Your task to perform on an android device: toggle notifications settings in the gmail app Image 0: 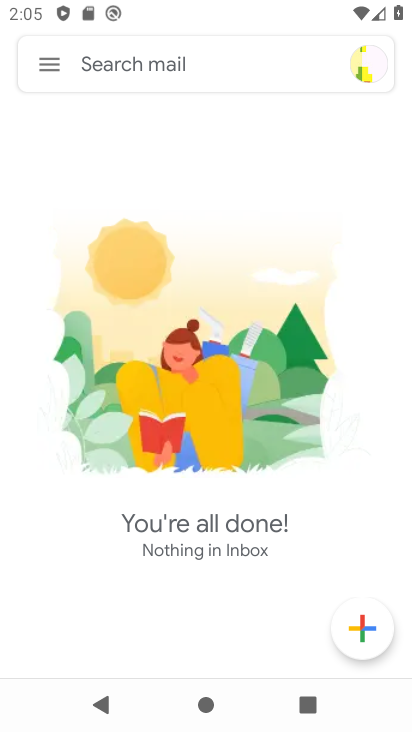
Step 0: press home button
Your task to perform on an android device: toggle notifications settings in the gmail app Image 1: 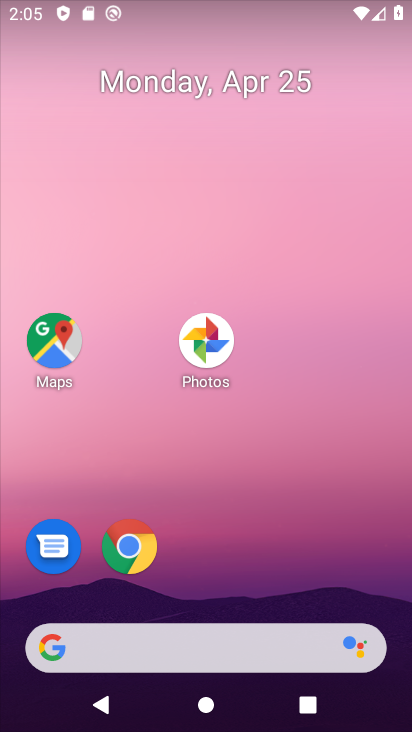
Step 1: drag from (307, 546) to (279, 373)
Your task to perform on an android device: toggle notifications settings in the gmail app Image 2: 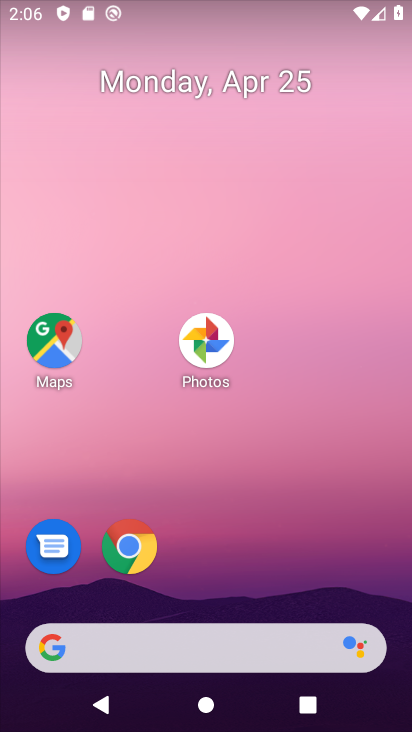
Step 2: drag from (283, 583) to (278, 251)
Your task to perform on an android device: toggle notifications settings in the gmail app Image 3: 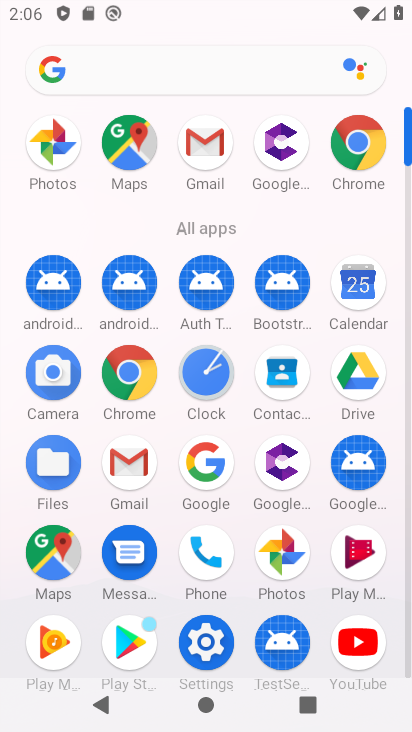
Step 3: click (204, 140)
Your task to perform on an android device: toggle notifications settings in the gmail app Image 4: 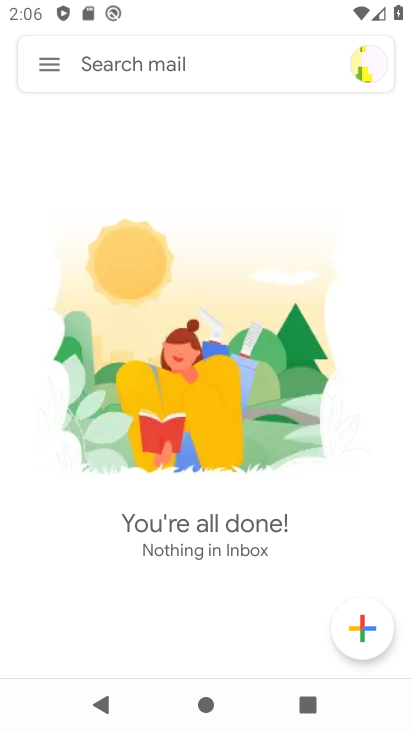
Step 4: click (40, 61)
Your task to perform on an android device: toggle notifications settings in the gmail app Image 5: 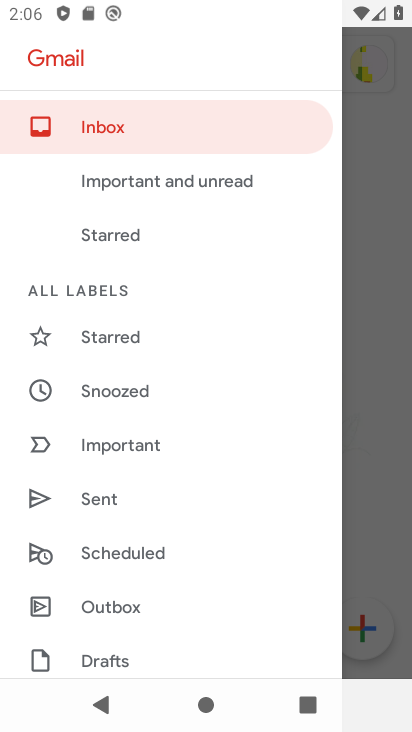
Step 5: drag from (165, 590) to (162, 235)
Your task to perform on an android device: toggle notifications settings in the gmail app Image 6: 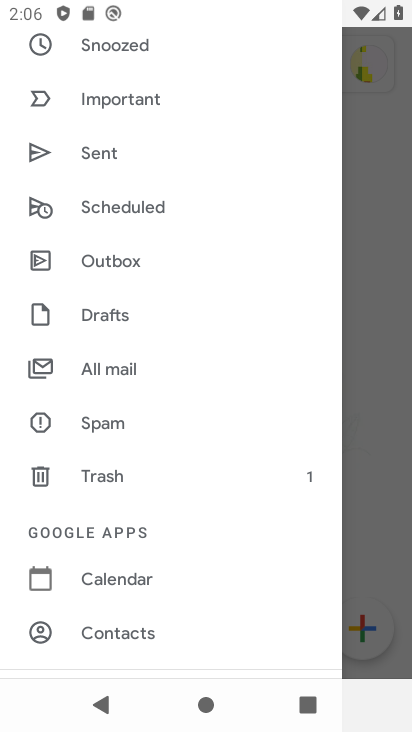
Step 6: drag from (176, 575) to (210, 230)
Your task to perform on an android device: toggle notifications settings in the gmail app Image 7: 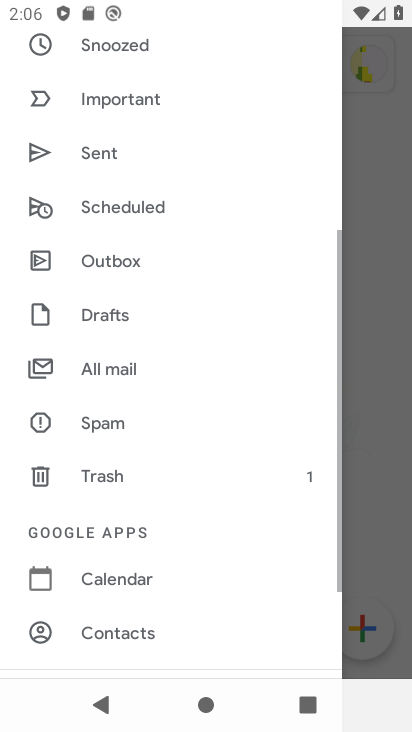
Step 7: drag from (213, 602) to (231, 215)
Your task to perform on an android device: toggle notifications settings in the gmail app Image 8: 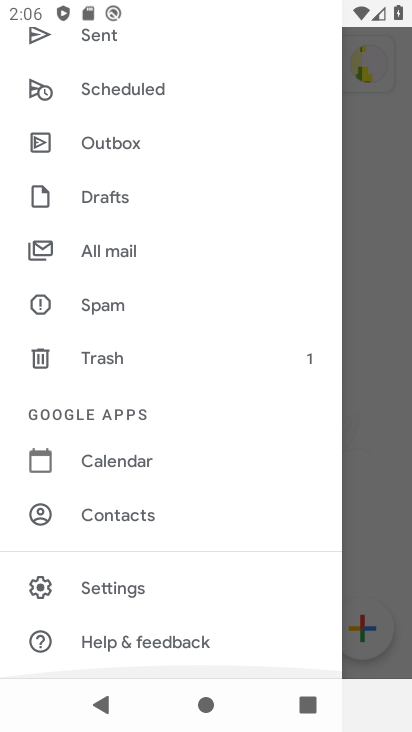
Step 8: click (151, 593)
Your task to perform on an android device: toggle notifications settings in the gmail app Image 9: 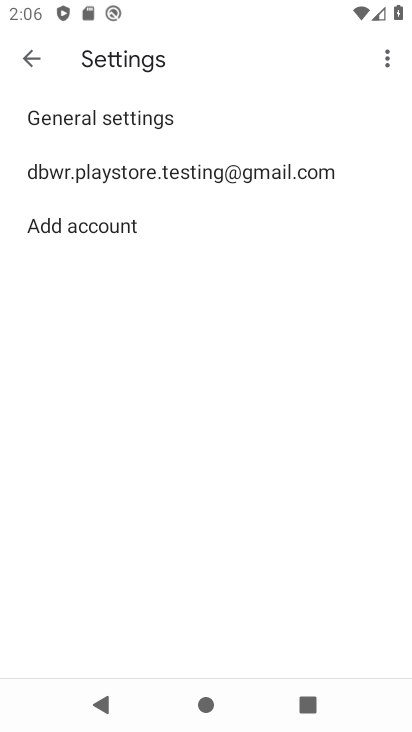
Step 9: click (206, 148)
Your task to perform on an android device: toggle notifications settings in the gmail app Image 10: 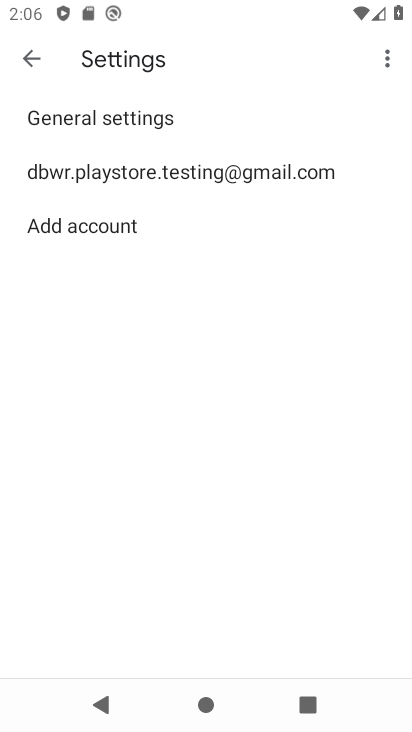
Step 10: click (211, 174)
Your task to perform on an android device: toggle notifications settings in the gmail app Image 11: 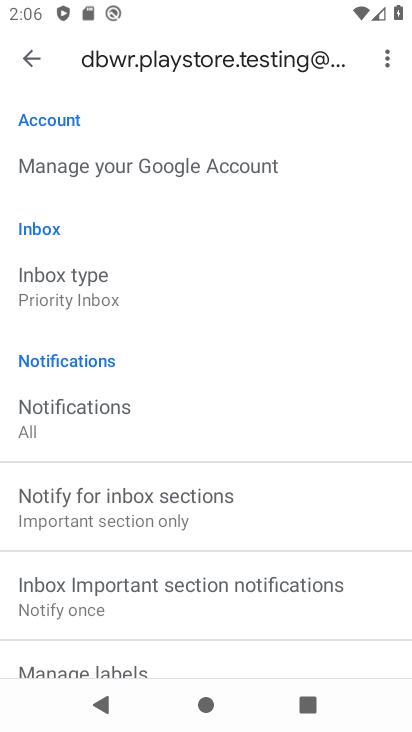
Step 11: click (89, 412)
Your task to perform on an android device: toggle notifications settings in the gmail app Image 12: 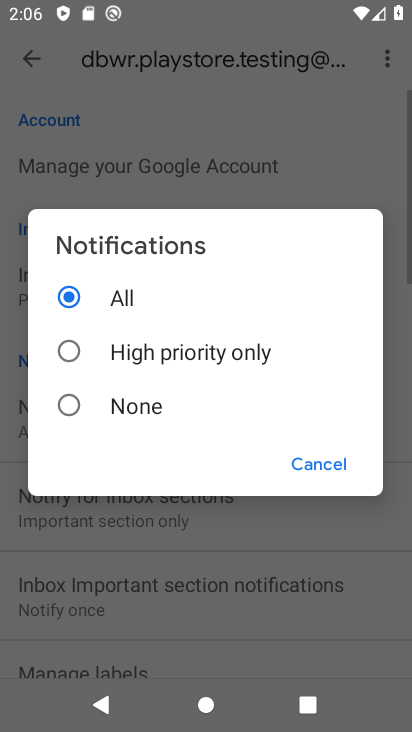
Step 12: click (124, 411)
Your task to perform on an android device: toggle notifications settings in the gmail app Image 13: 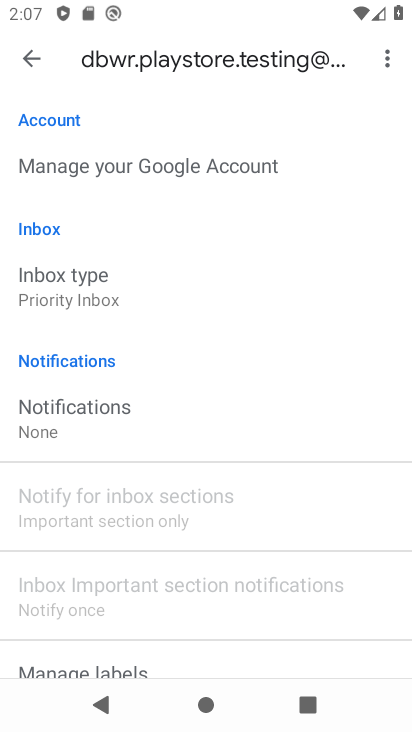
Step 13: task complete